Your task to perform on an android device: Search for logitech g910 on bestbuy, select the first entry, and add it to the cart. Image 0: 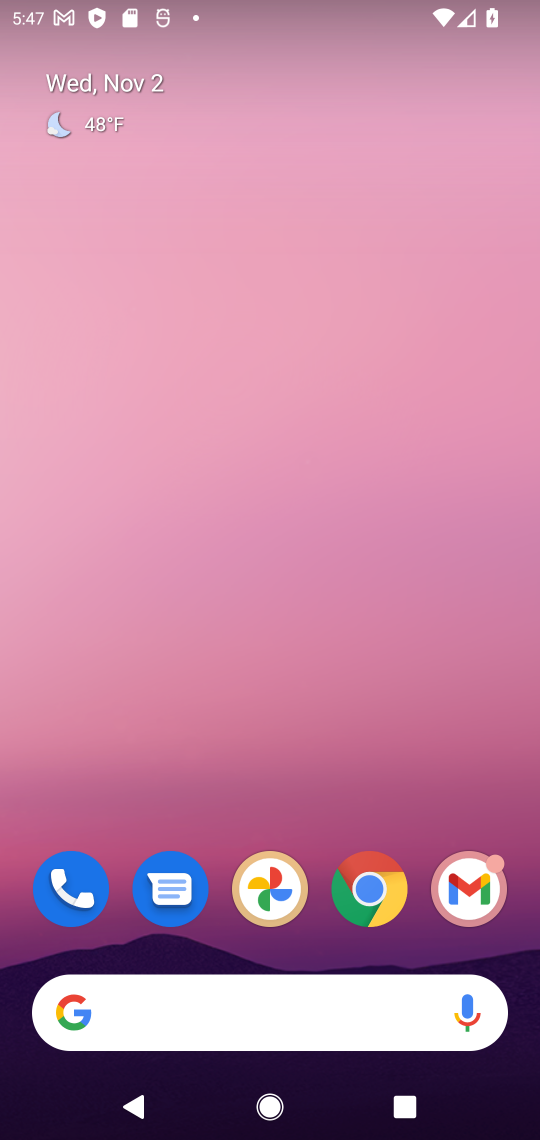
Step 0: click (369, 883)
Your task to perform on an android device: Search for logitech g910 on bestbuy, select the first entry, and add it to the cart. Image 1: 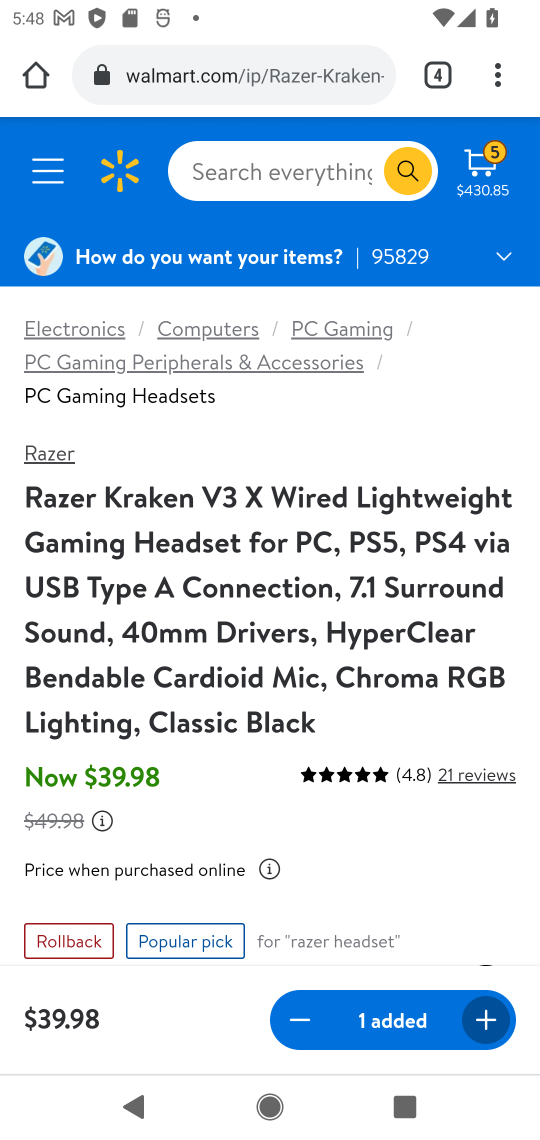
Step 1: click (260, 64)
Your task to perform on an android device: Search for logitech g910 on bestbuy, select the first entry, and add it to the cart. Image 2: 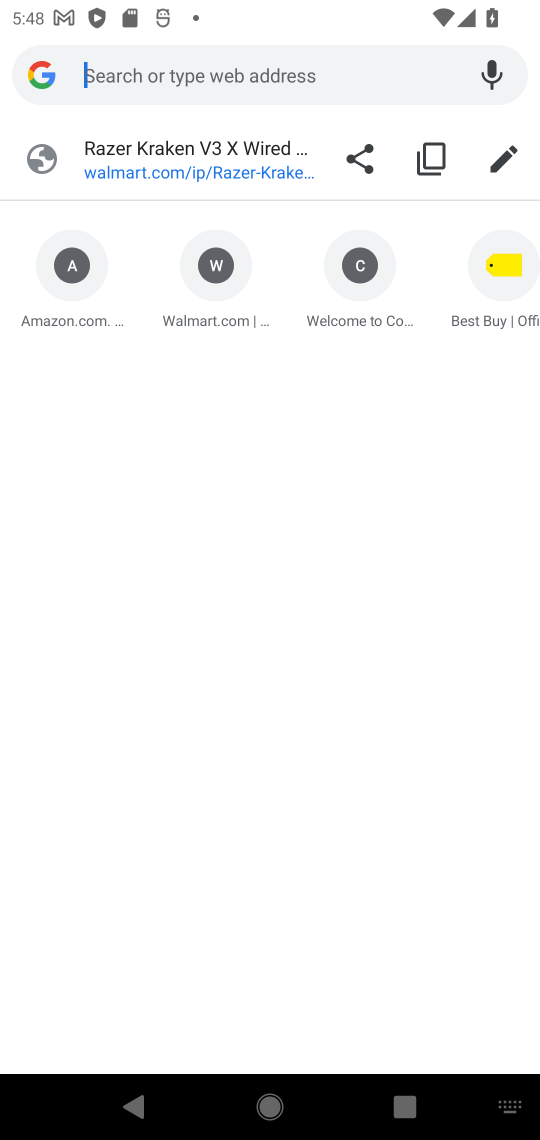
Step 2: type "bestbuy"
Your task to perform on an android device: Search for logitech g910 on bestbuy, select the first entry, and add it to the cart. Image 3: 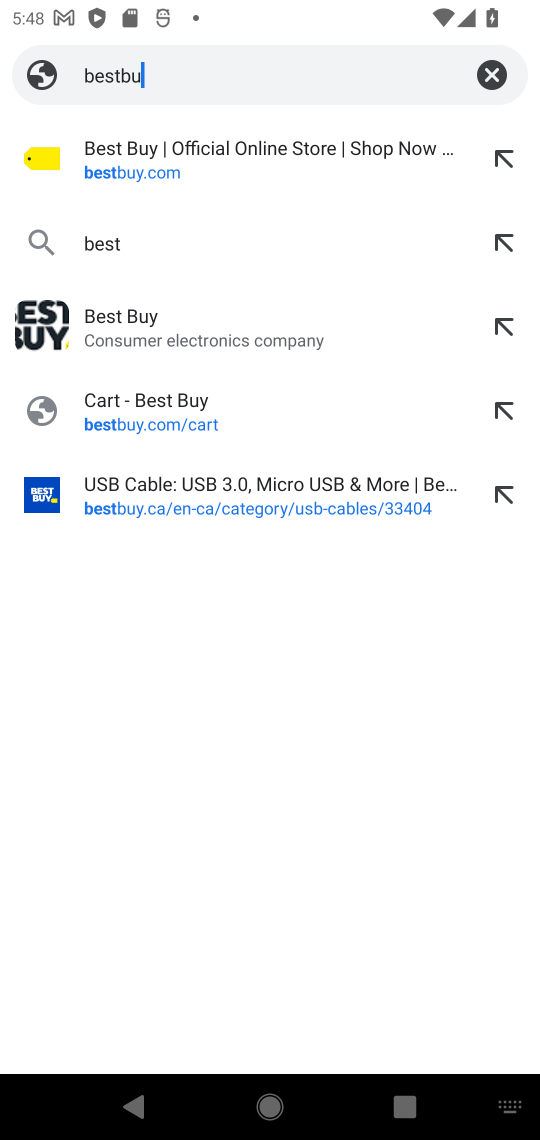
Step 3: press enter
Your task to perform on an android device: Search for logitech g910 on bestbuy, select the first entry, and add it to the cart. Image 4: 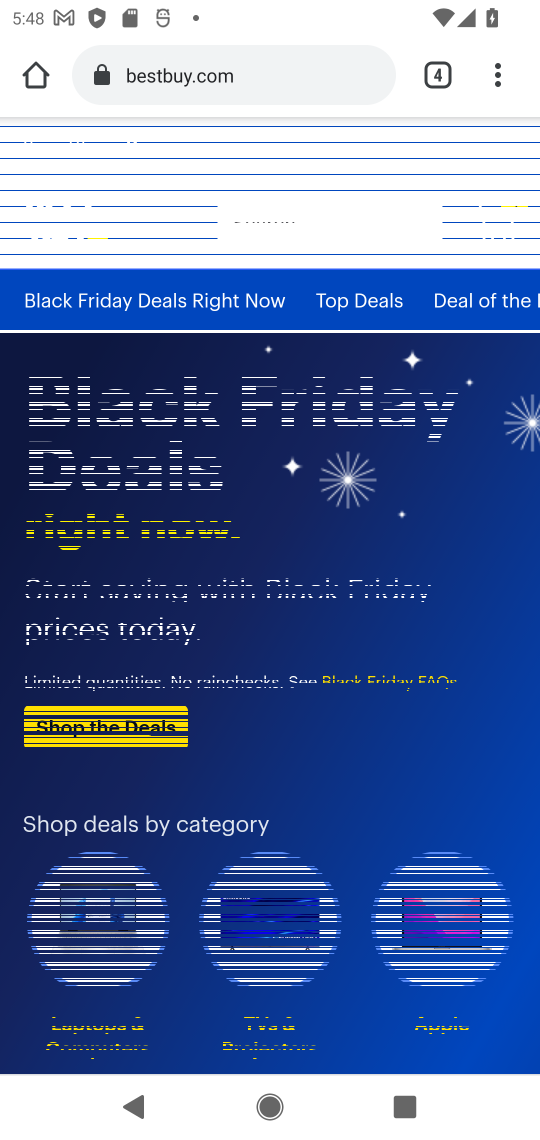
Step 4: drag from (295, 404) to (351, 858)
Your task to perform on an android device: Search for logitech g910 on bestbuy, select the first entry, and add it to the cart. Image 5: 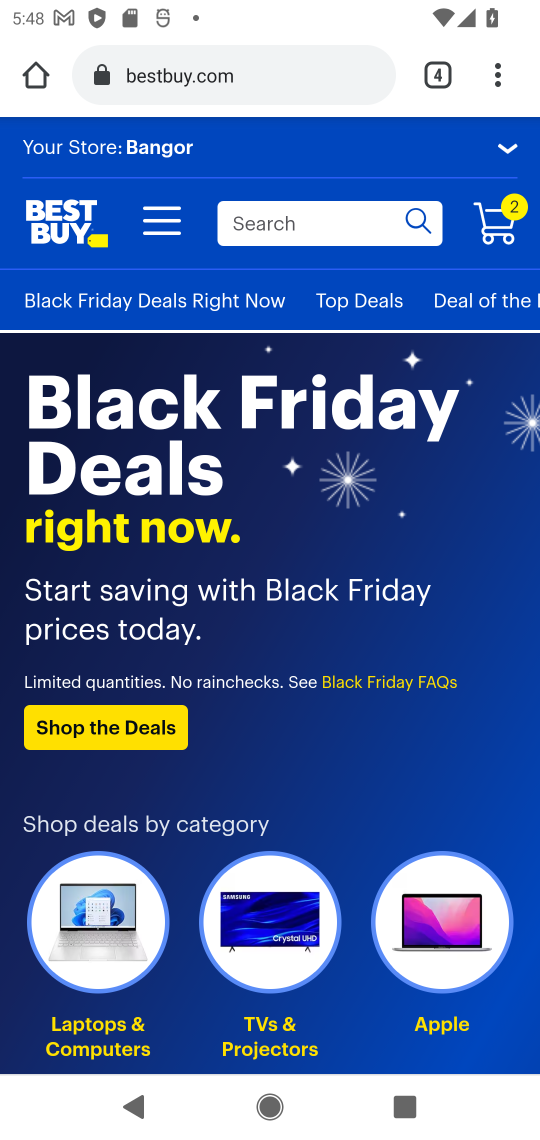
Step 5: click (320, 215)
Your task to perform on an android device: Search for logitech g910 on bestbuy, select the first entry, and add it to the cart. Image 6: 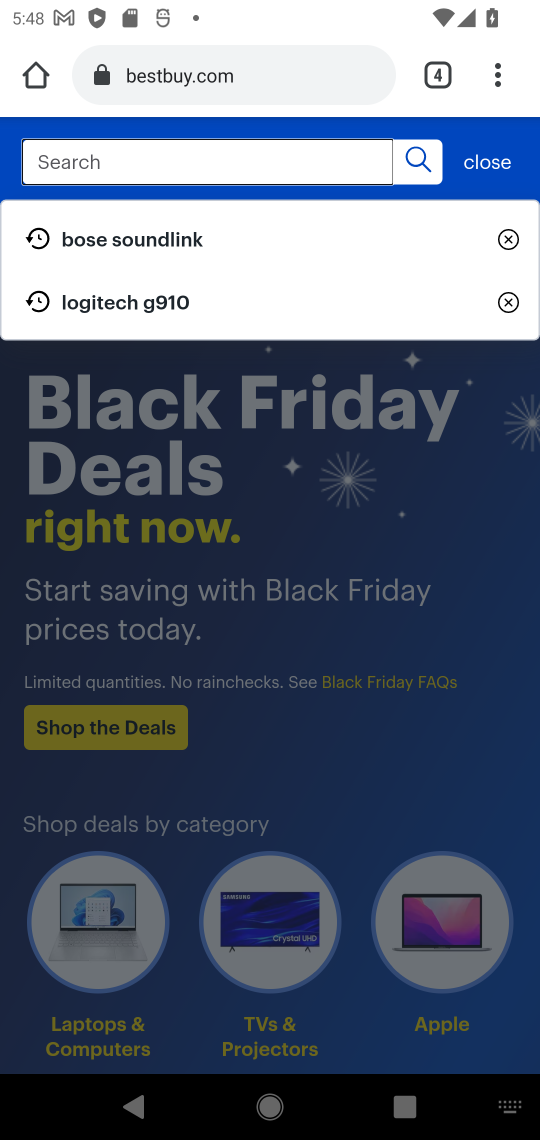
Step 6: type " logitech g910"
Your task to perform on an android device: Search for logitech g910 on bestbuy, select the first entry, and add it to the cart. Image 7: 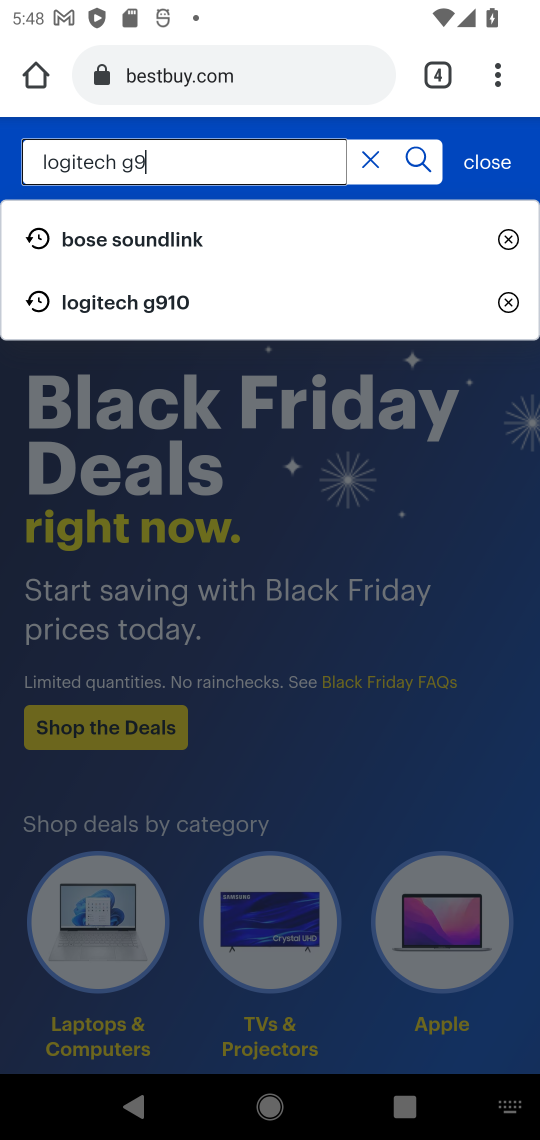
Step 7: press enter
Your task to perform on an android device: Search for logitech g910 on bestbuy, select the first entry, and add it to the cart. Image 8: 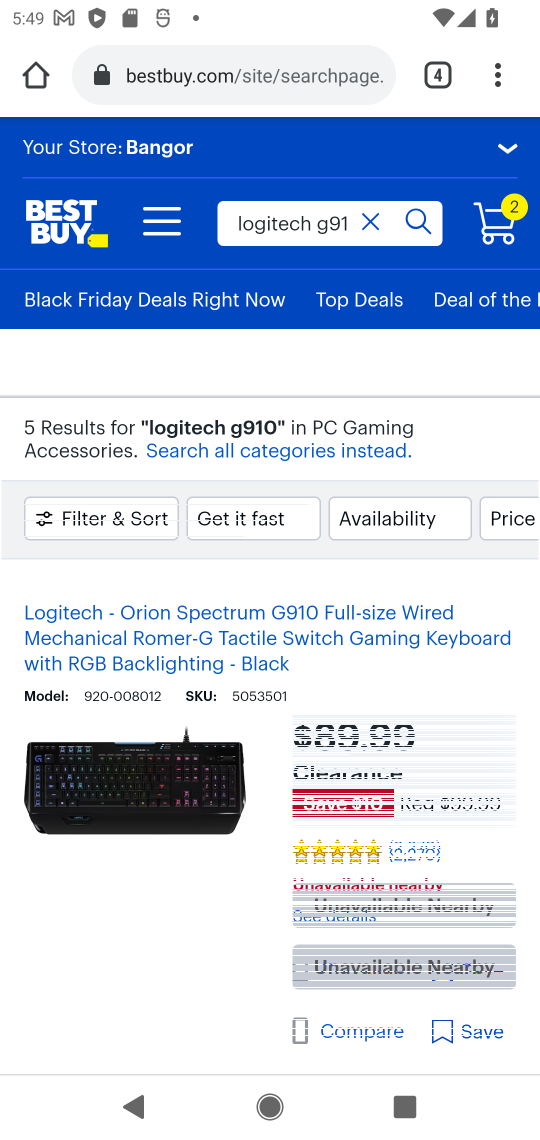
Step 8: drag from (183, 946) to (419, 267)
Your task to perform on an android device: Search for logitech g910 on bestbuy, select the first entry, and add it to the cart. Image 9: 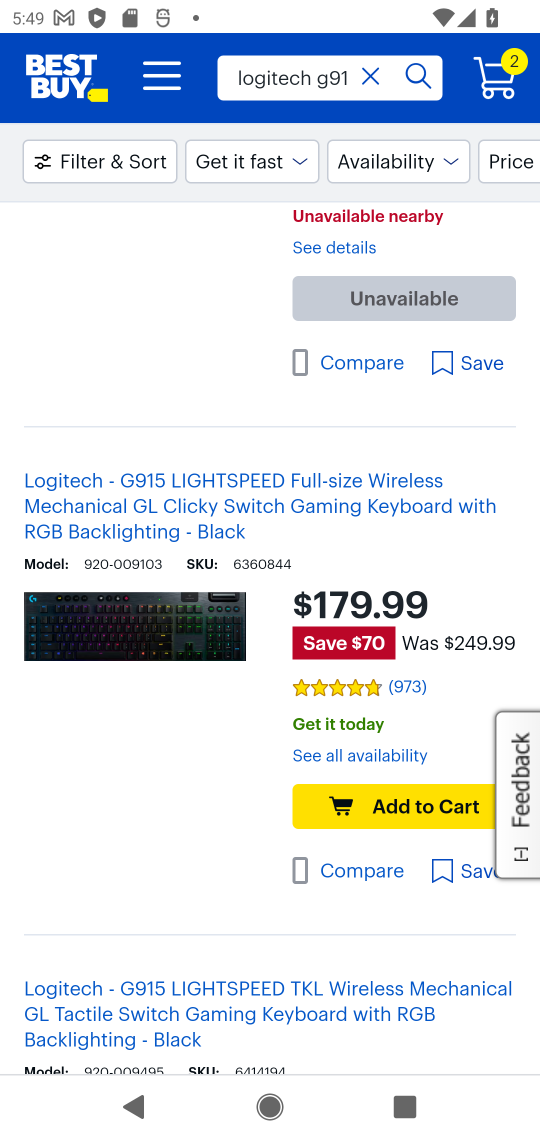
Step 9: drag from (373, 391) to (373, 745)
Your task to perform on an android device: Search for logitech g910 on bestbuy, select the first entry, and add it to the cart. Image 10: 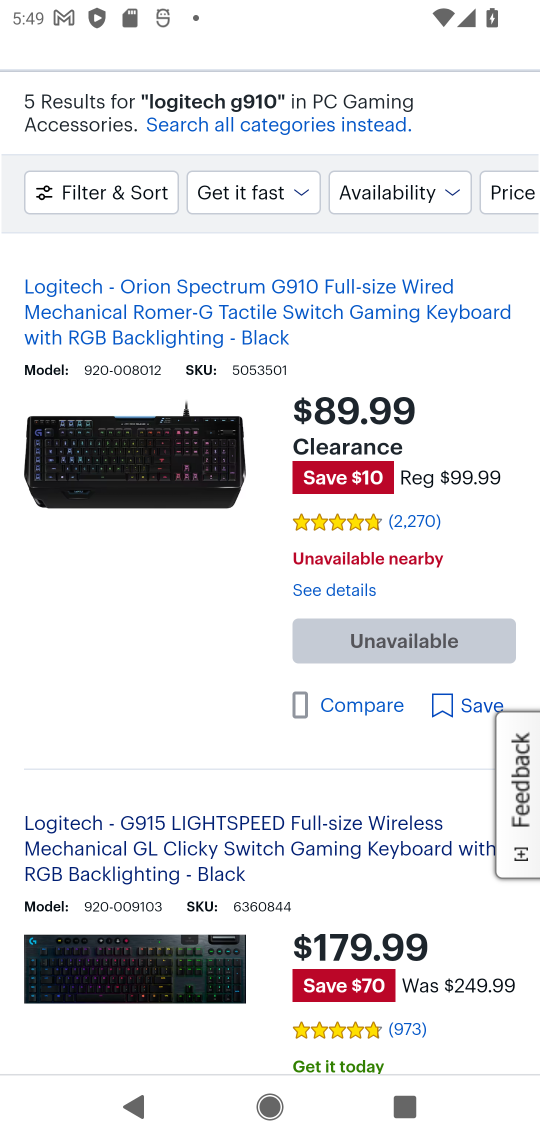
Step 10: click (368, 642)
Your task to perform on an android device: Search for logitech g910 on bestbuy, select the first entry, and add it to the cart. Image 11: 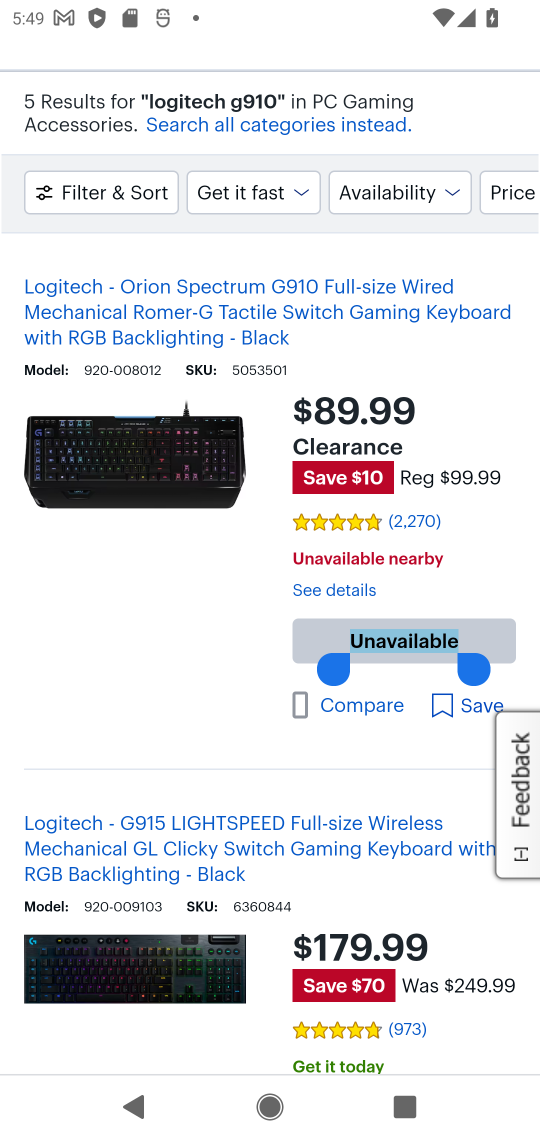
Step 11: click (469, 502)
Your task to perform on an android device: Search for logitech g910 on bestbuy, select the first entry, and add it to the cart. Image 12: 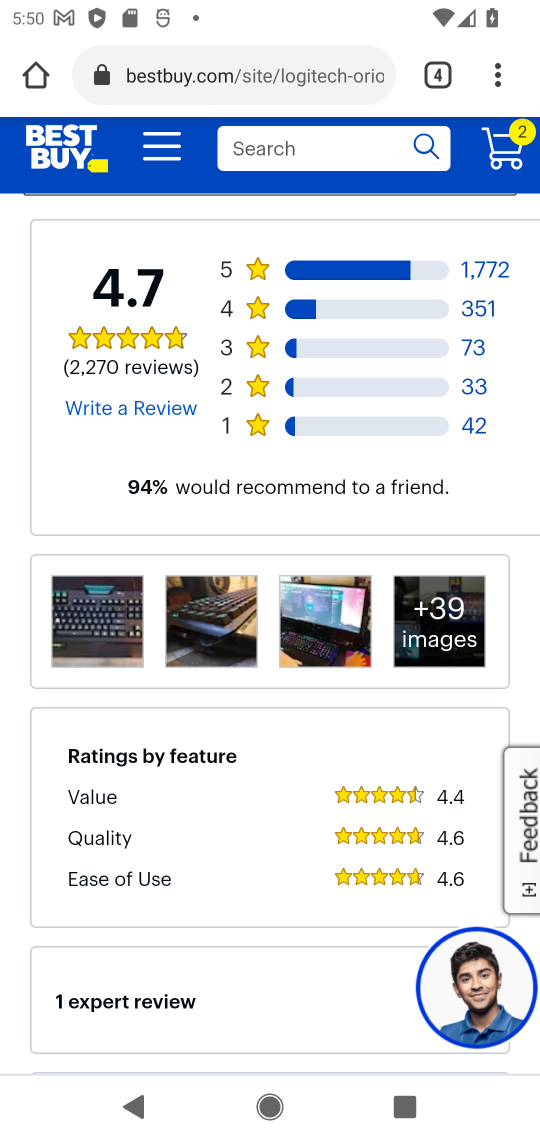
Step 12: task complete